Your task to perform on an android device: Open internet settings Image 0: 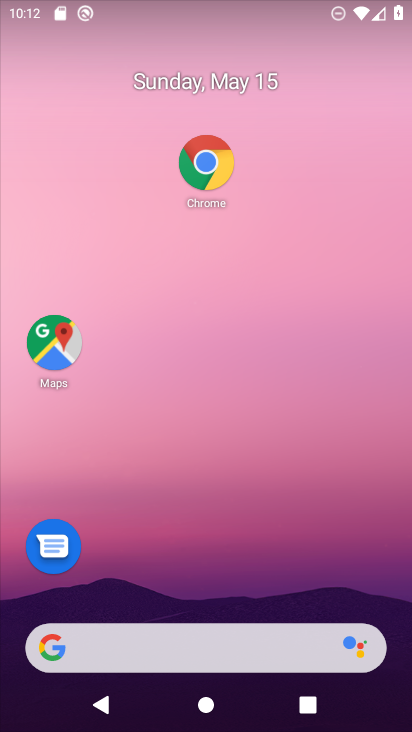
Step 0: drag from (261, 557) to (308, 248)
Your task to perform on an android device: Open internet settings Image 1: 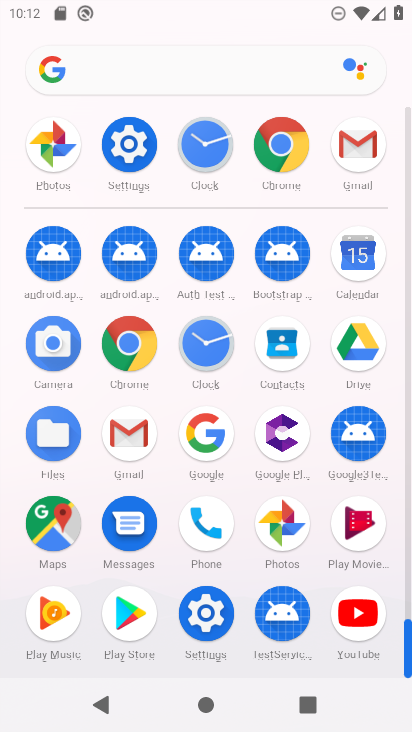
Step 1: click (120, 139)
Your task to perform on an android device: Open internet settings Image 2: 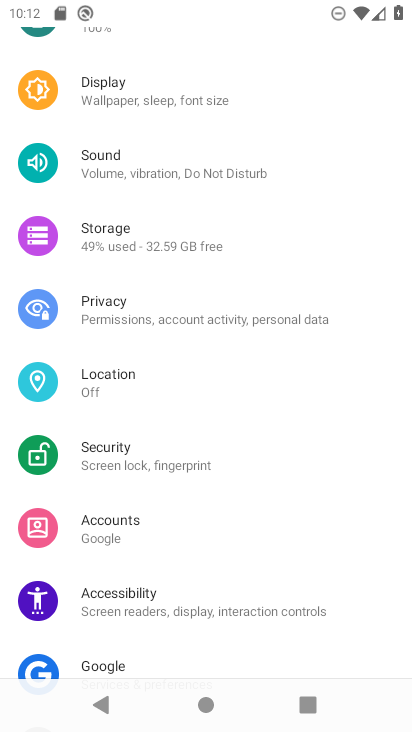
Step 2: drag from (253, 140) to (196, 580)
Your task to perform on an android device: Open internet settings Image 3: 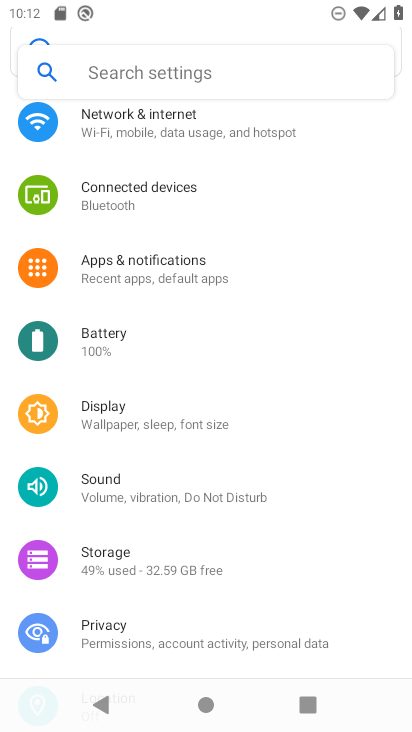
Step 3: click (151, 134)
Your task to perform on an android device: Open internet settings Image 4: 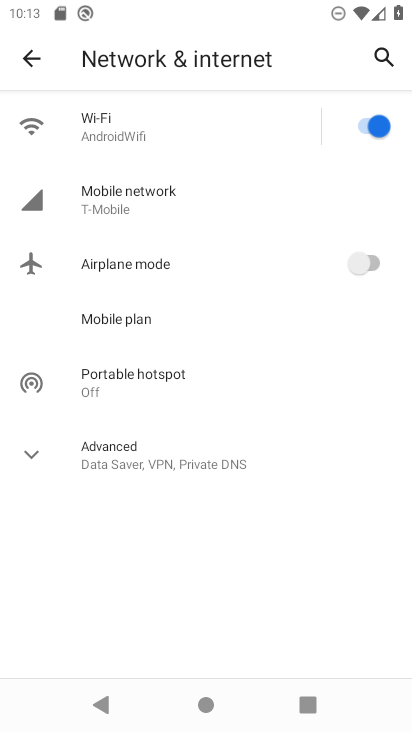
Step 4: task complete